Your task to perform on an android device: Open maps Image 0: 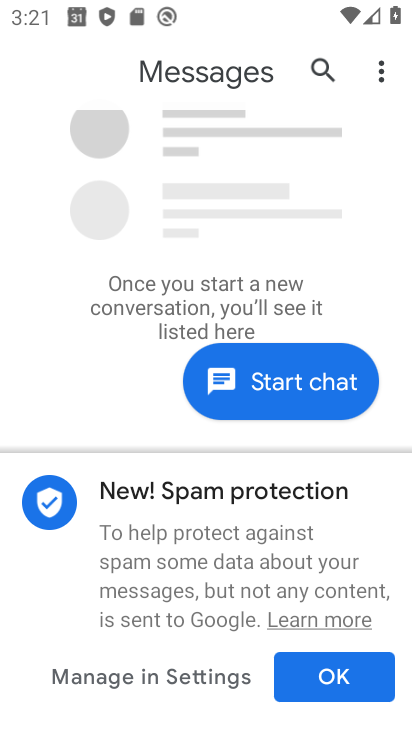
Step 0: press home button
Your task to perform on an android device: Open maps Image 1: 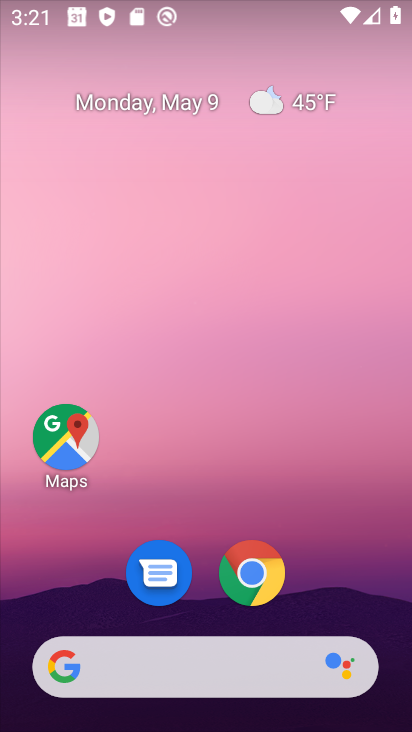
Step 1: click (64, 421)
Your task to perform on an android device: Open maps Image 2: 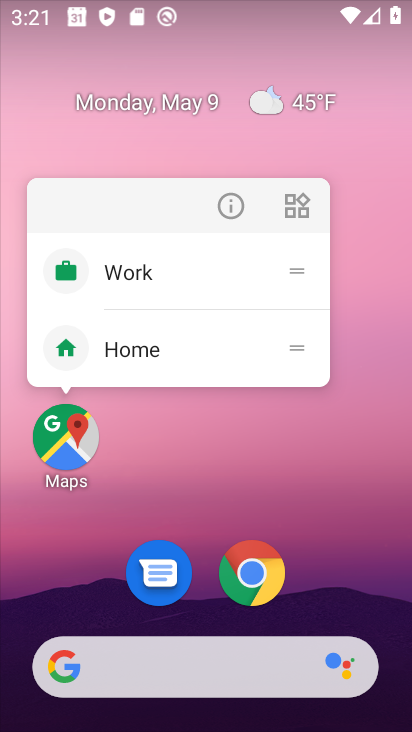
Step 2: click (78, 422)
Your task to perform on an android device: Open maps Image 3: 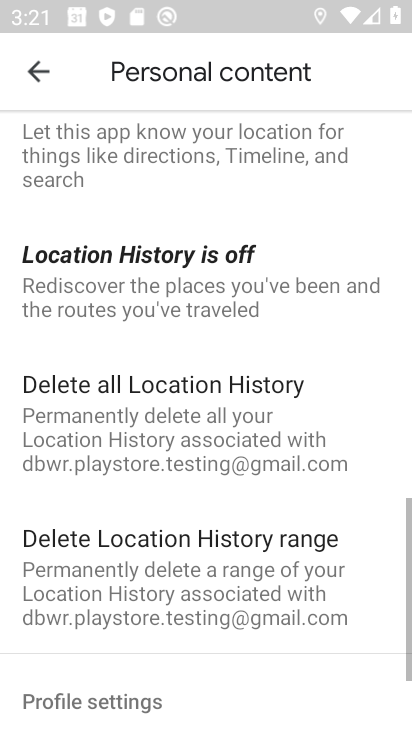
Step 3: click (14, 46)
Your task to perform on an android device: Open maps Image 4: 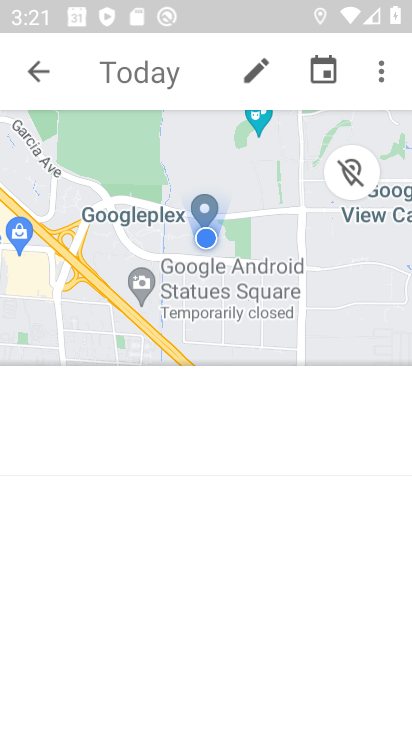
Step 4: click (20, 59)
Your task to perform on an android device: Open maps Image 5: 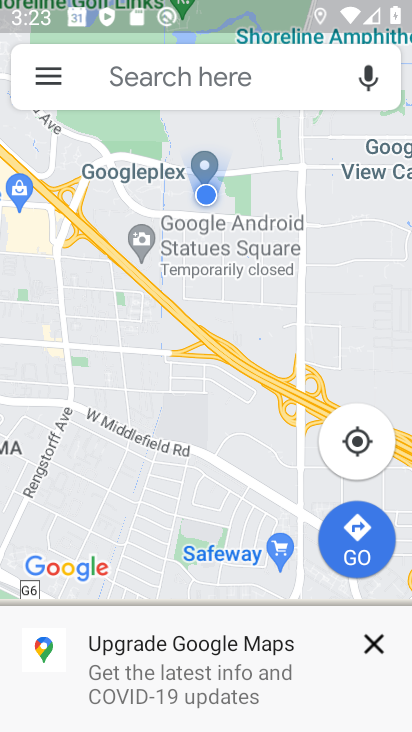
Step 5: task complete